Your task to perform on an android device: turn on showing notifications on the lock screen Image 0: 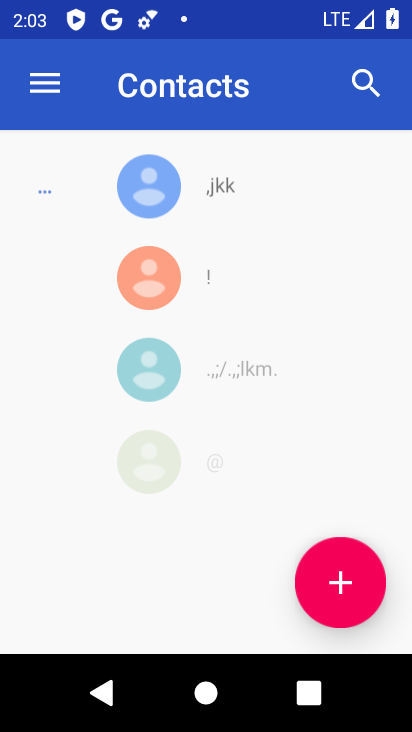
Step 0: drag from (308, 533) to (374, 178)
Your task to perform on an android device: turn on showing notifications on the lock screen Image 1: 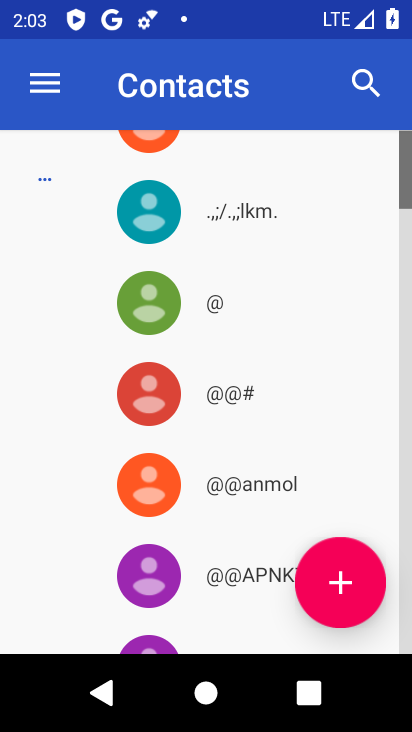
Step 1: press home button
Your task to perform on an android device: turn on showing notifications on the lock screen Image 2: 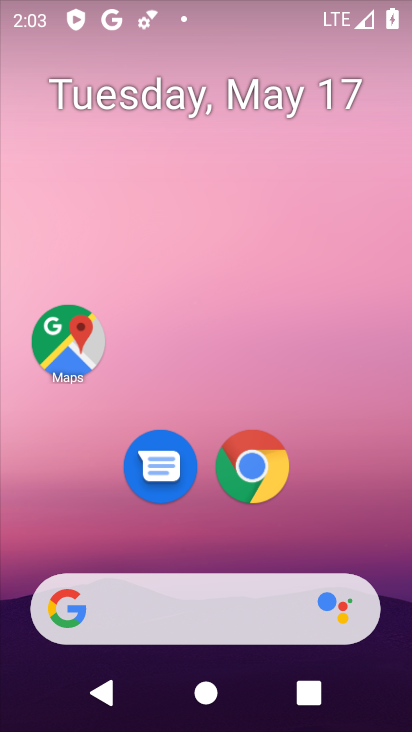
Step 2: drag from (342, 545) to (391, 133)
Your task to perform on an android device: turn on showing notifications on the lock screen Image 3: 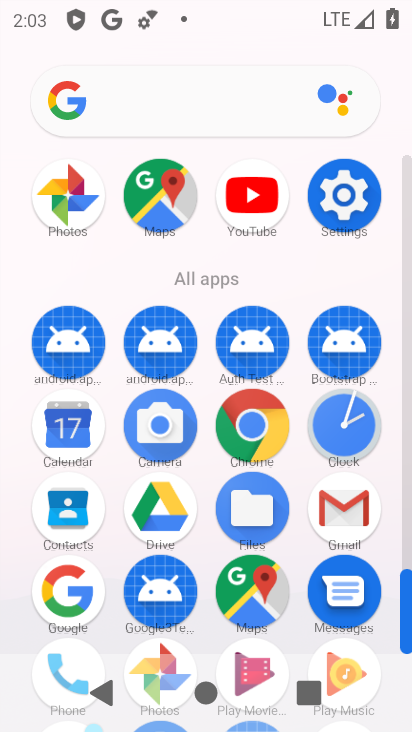
Step 3: click (355, 205)
Your task to perform on an android device: turn on showing notifications on the lock screen Image 4: 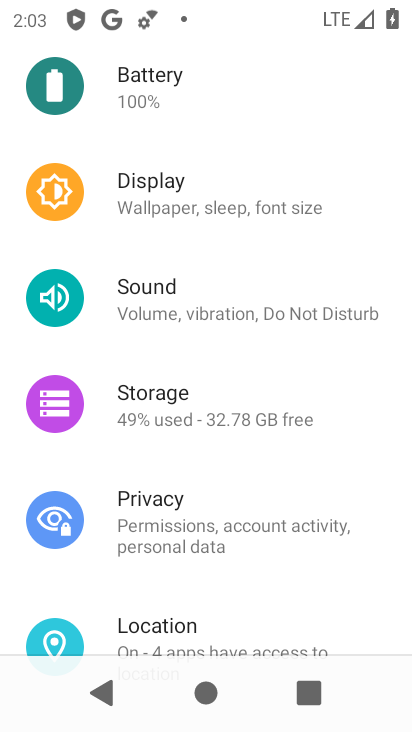
Step 4: drag from (246, 175) to (189, 675)
Your task to perform on an android device: turn on showing notifications on the lock screen Image 5: 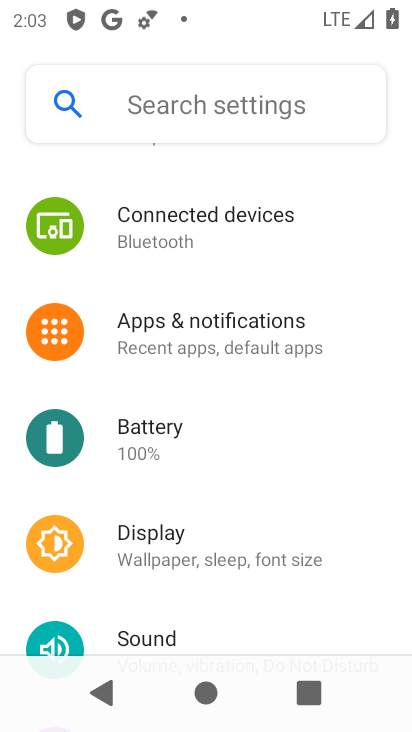
Step 5: click (210, 367)
Your task to perform on an android device: turn on showing notifications on the lock screen Image 6: 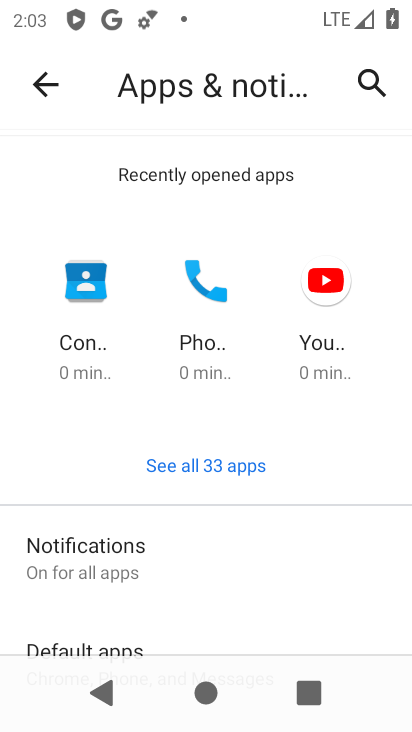
Step 6: click (125, 547)
Your task to perform on an android device: turn on showing notifications on the lock screen Image 7: 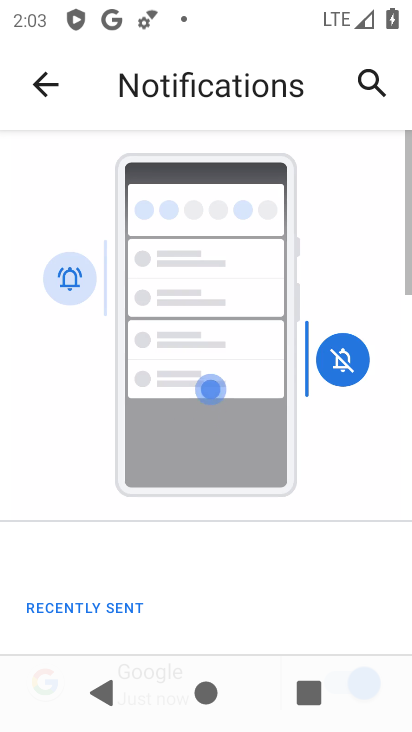
Step 7: drag from (236, 577) to (390, 25)
Your task to perform on an android device: turn on showing notifications on the lock screen Image 8: 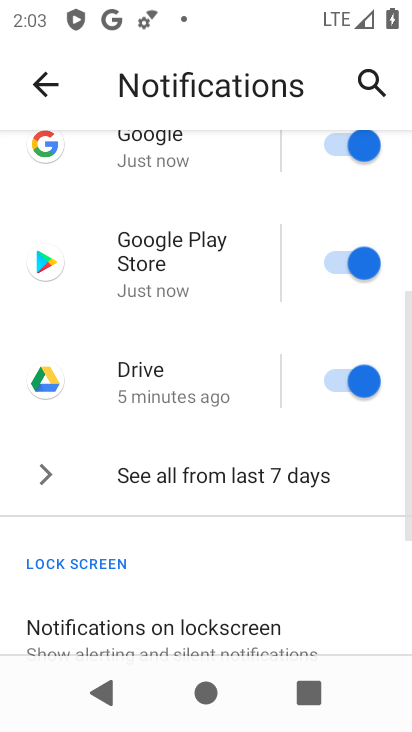
Step 8: drag from (221, 586) to (393, 65)
Your task to perform on an android device: turn on showing notifications on the lock screen Image 9: 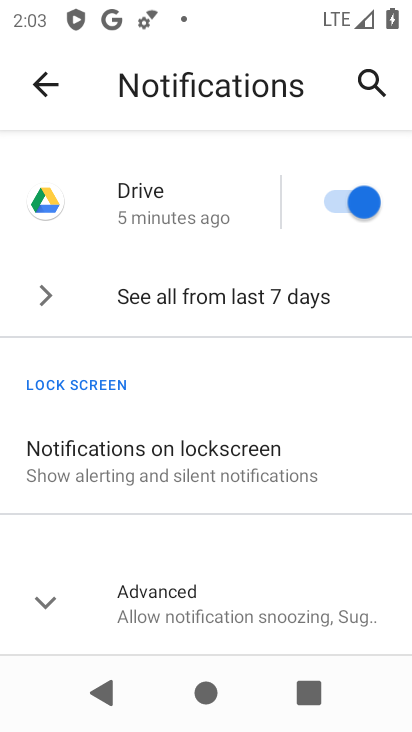
Step 9: click (227, 471)
Your task to perform on an android device: turn on showing notifications on the lock screen Image 10: 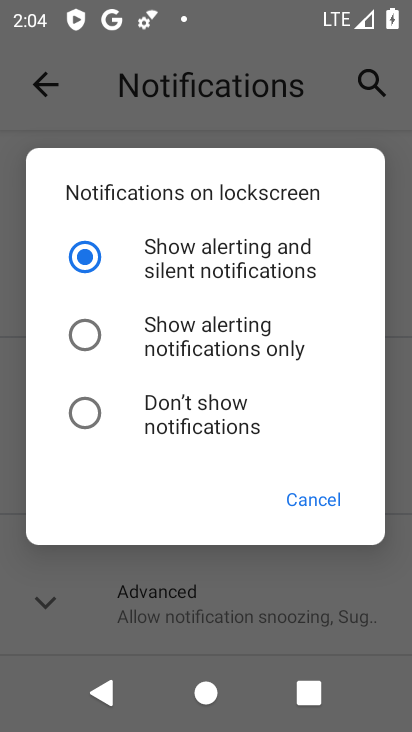
Step 10: click (149, 357)
Your task to perform on an android device: turn on showing notifications on the lock screen Image 11: 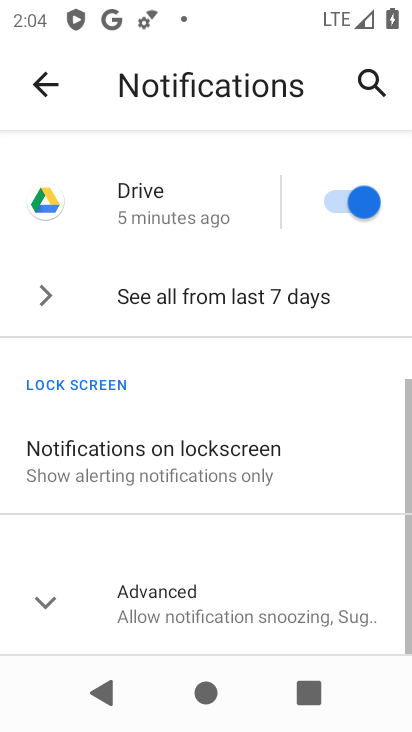
Step 11: task complete